Your task to perform on an android device: install app "YouTube Kids" Image 0: 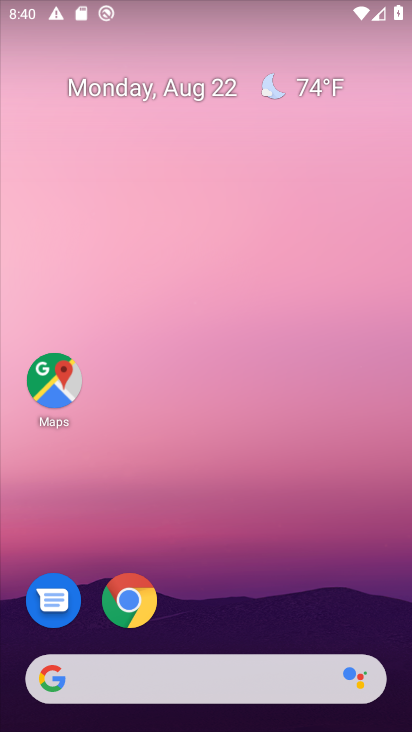
Step 0: drag from (199, 622) to (232, 186)
Your task to perform on an android device: install app "YouTube Kids" Image 1: 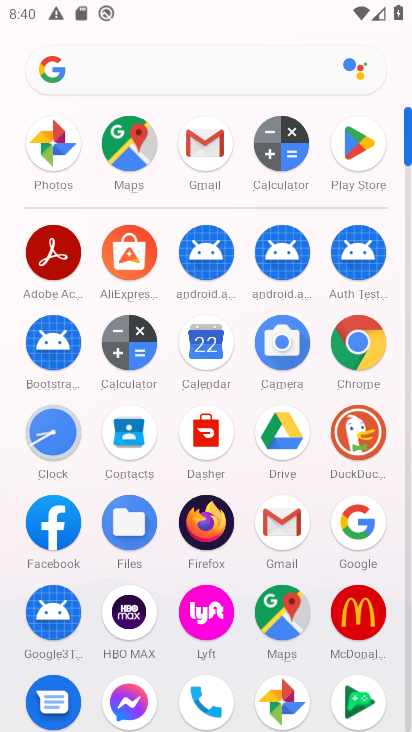
Step 1: click (349, 123)
Your task to perform on an android device: install app "YouTube Kids" Image 2: 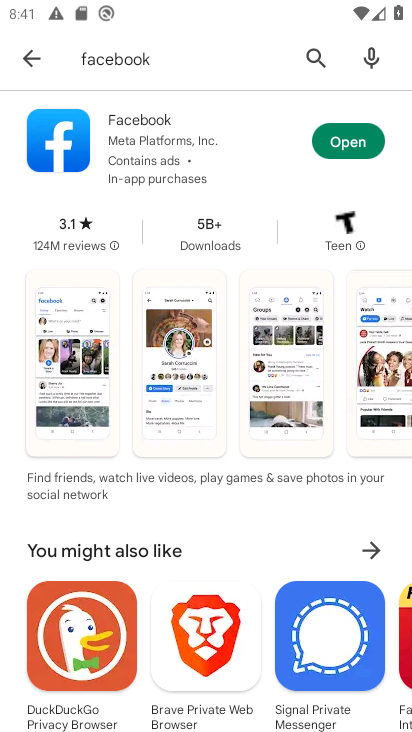
Step 2: click (315, 48)
Your task to perform on an android device: install app "YouTube Kids" Image 3: 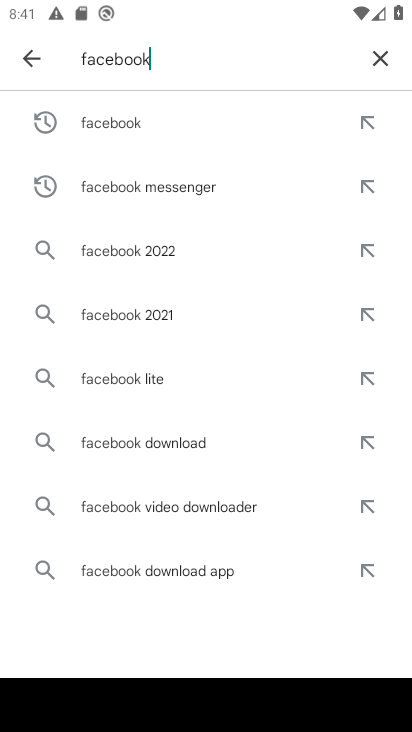
Step 3: click (386, 57)
Your task to perform on an android device: install app "YouTube Kids" Image 4: 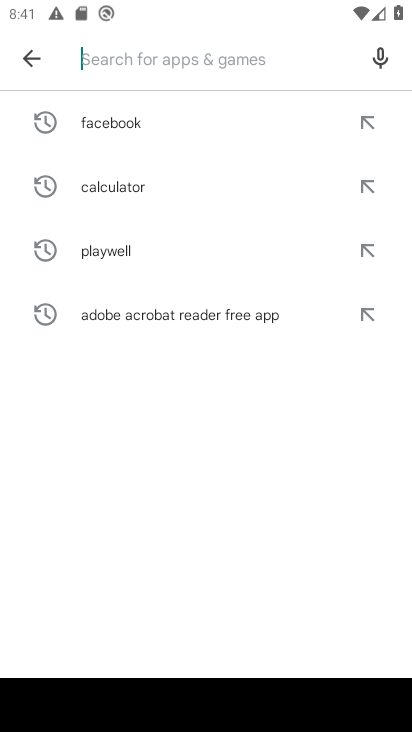
Step 4: type "YouTube Kids"
Your task to perform on an android device: install app "YouTube Kids" Image 5: 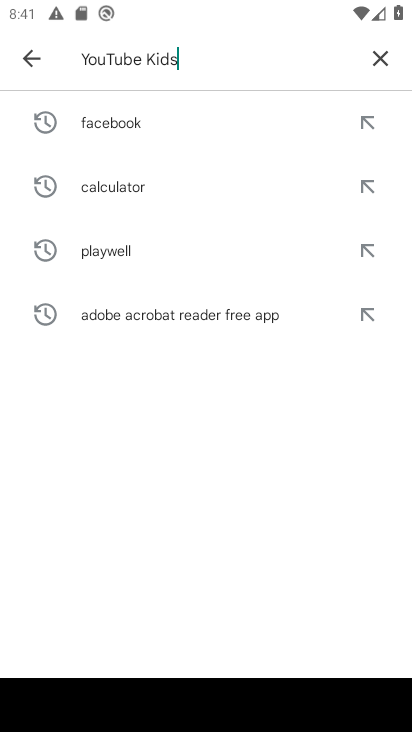
Step 5: type ""
Your task to perform on an android device: install app "YouTube Kids" Image 6: 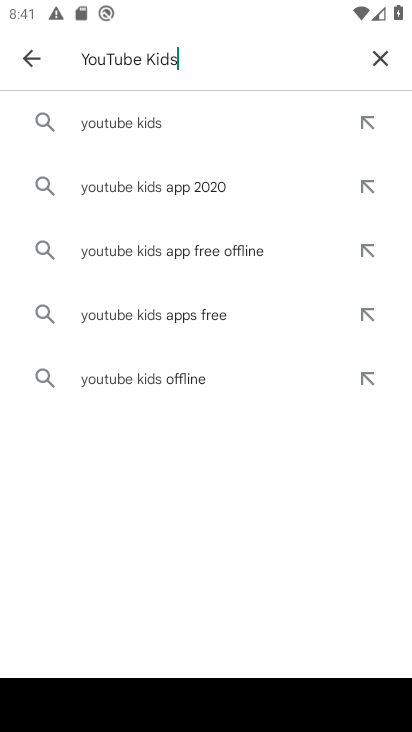
Step 6: click (150, 131)
Your task to perform on an android device: install app "YouTube Kids" Image 7: 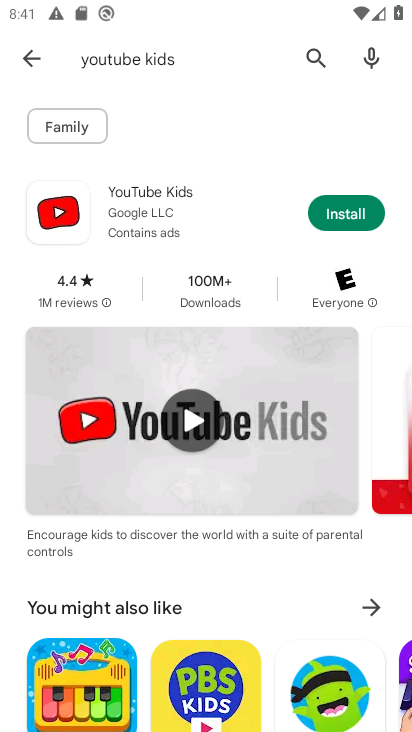
Step 7: click (325, 209)
Your task to perform on an android device: install app "YouTube Kids" Image 8: 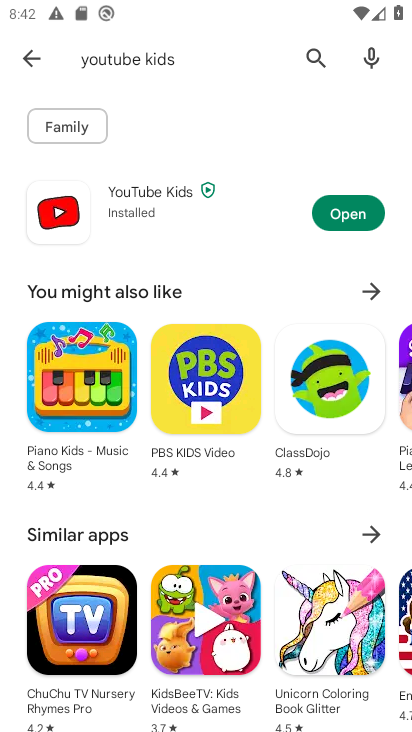
Step 8: task complete